Your task to perform on an android device: turn off notifications in google photos Image 0: 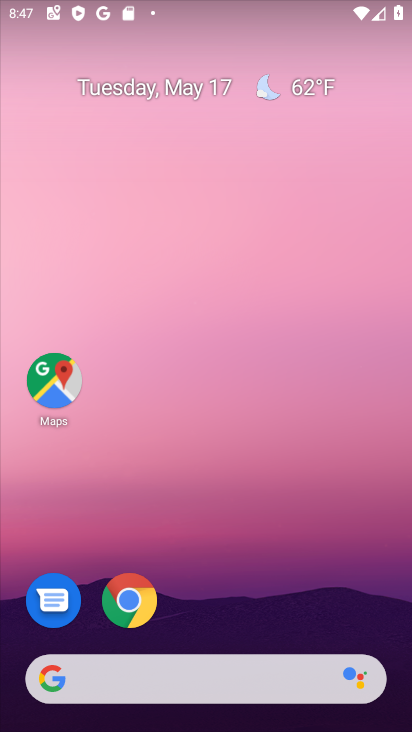
Step 0: drag from (225, 671) to (206, 159)
Your task to perform on an android device: turn off notifications in google photos Image 1: 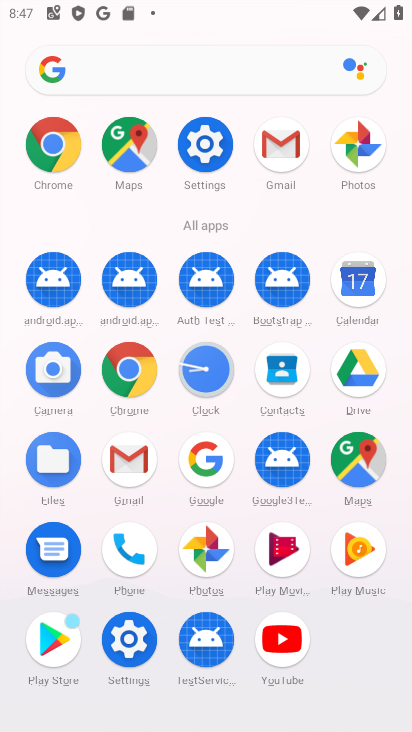
Step 1: click (201, 546)
Your task to perform on an android device: turn off notifications in google photos Image 2: 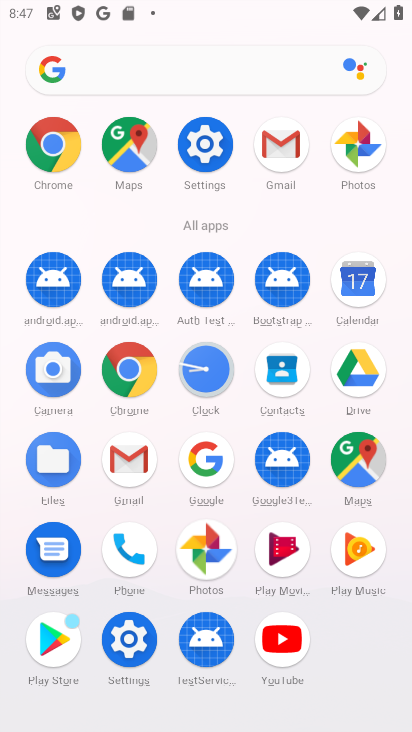
Step 2: click (201, 546)
Your task to perform on an android device: turn off notifications in google photos Image 3: 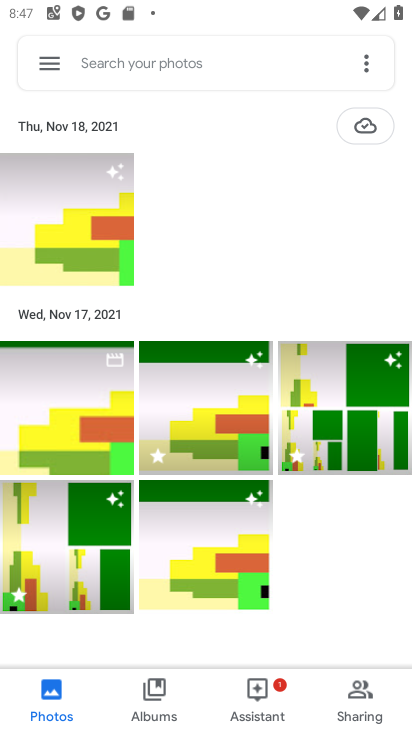
Step 3: click (50, 62)
Your task to perform on an android device: turn off notifications in google photos Image 4: 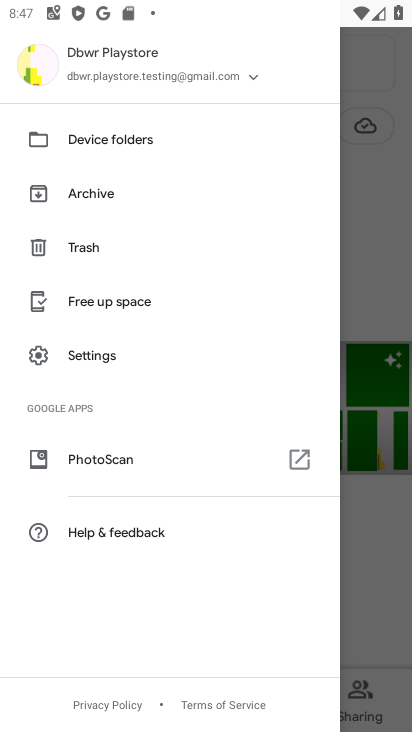
Step 4: click (91, 350)
Your task to perform on an android device: turn off notifications in google photos Image 5: 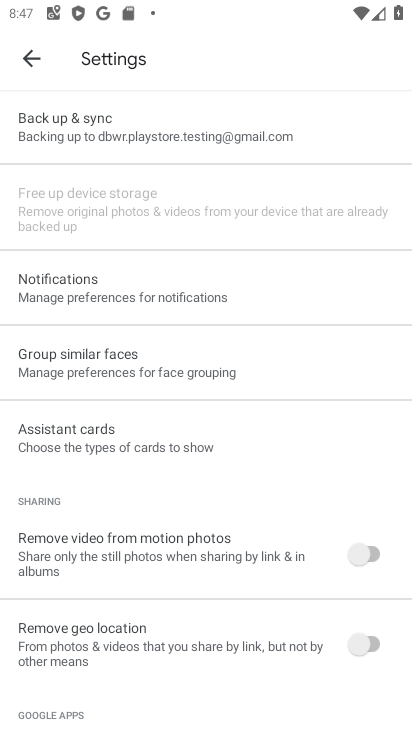
Step 5: click (83, 295)
Your task to perform on an android device: turn off notifications in google photos Image 6: 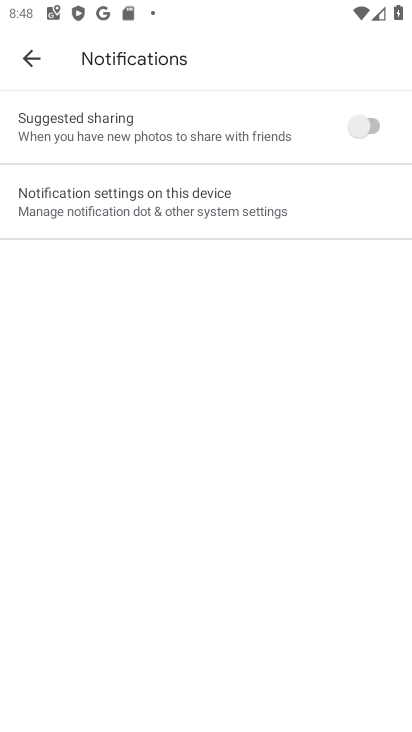
Step 6: click (141, 202)
Your task to perform on an android device: turn off notifications in google photos Image 7: 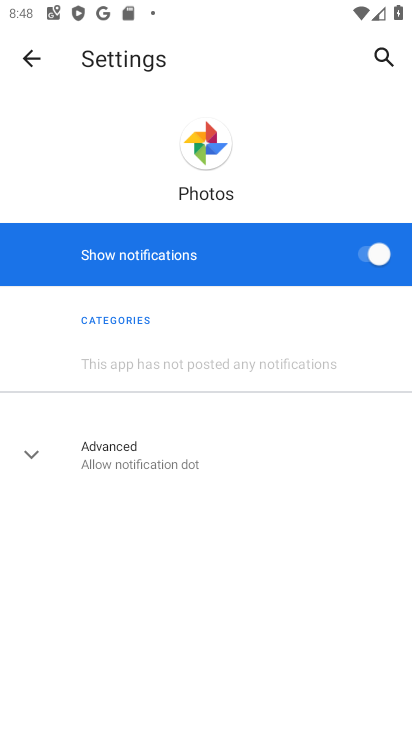
Step 7: click (359, 253)
Your task to perform on an android device: turn off notifications in google photos Image 8: 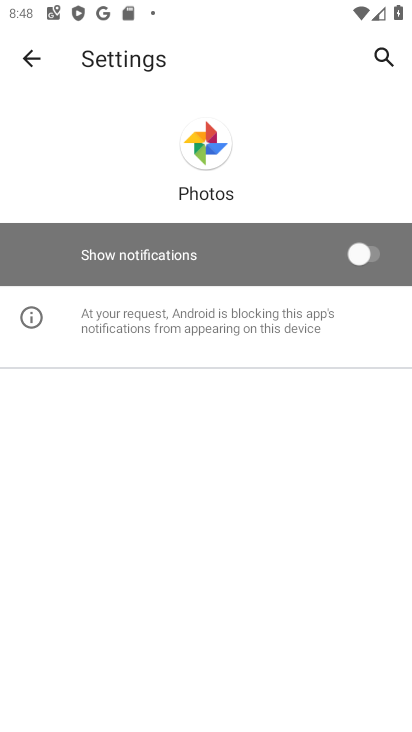
Step 8: task complete